Your task to perform on an android device: Go to Android settings Image 0: 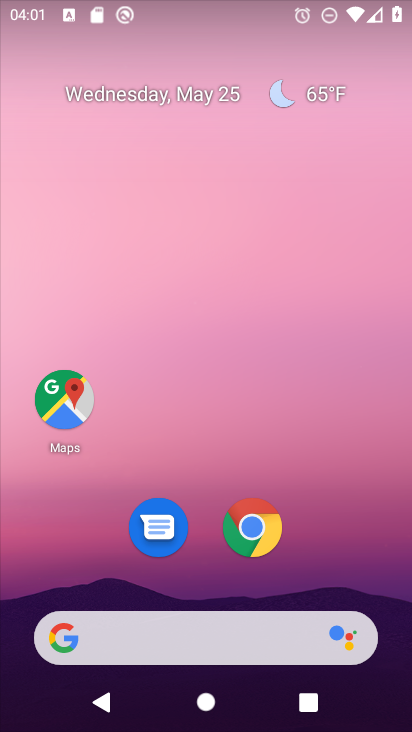
Step 0: drag from (276, 640) to (319, 74)
Your task to perform on an android device: Go to Android settings Image 1: 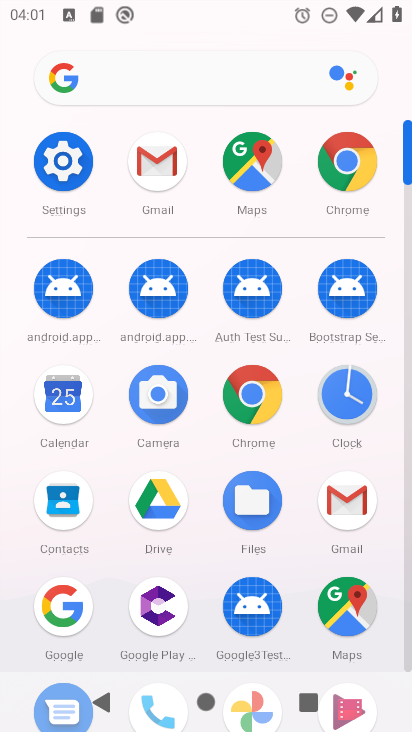
Step 1: click (51, 166)
Your task to perform on an android device: Go to Android settings Image 2: 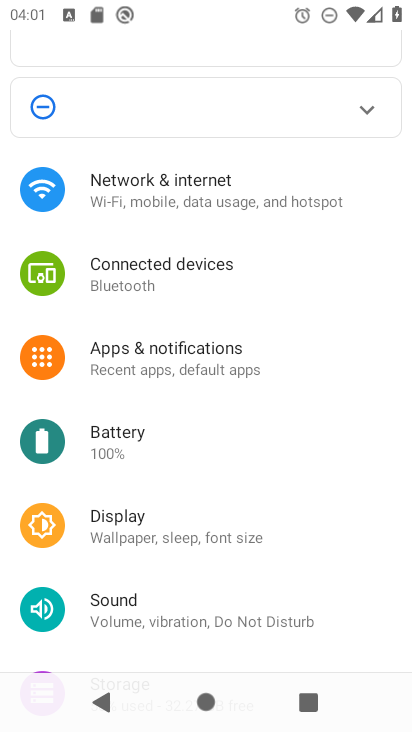
Step 2: drag from (185, 636) to (258, 88)
Your task to perform on an android device: Go to Android settings Image 3: 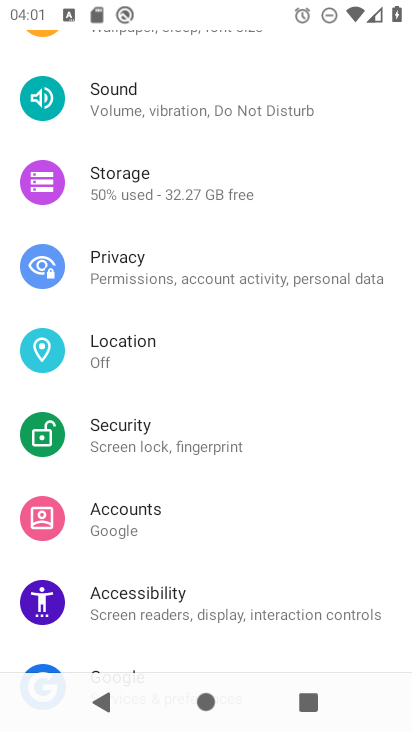
Step 3: drag from (222, 634) to (270, 128)
Your task to perform on an android device: Go to Android settings Image 4: 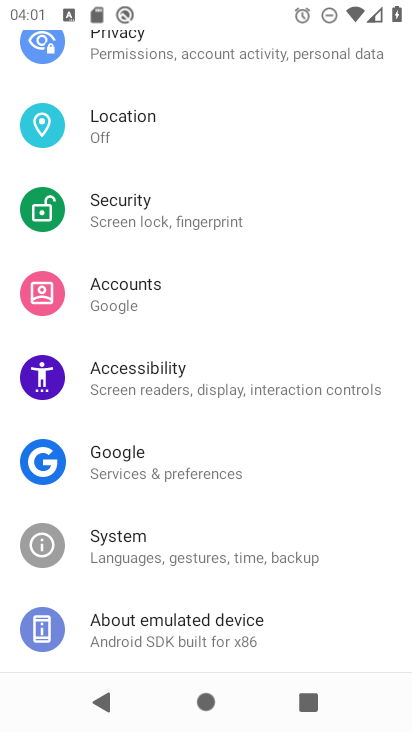
Step 4: click (157, 613)
Your task to perform on an android device: Go to Android settings Image 5: 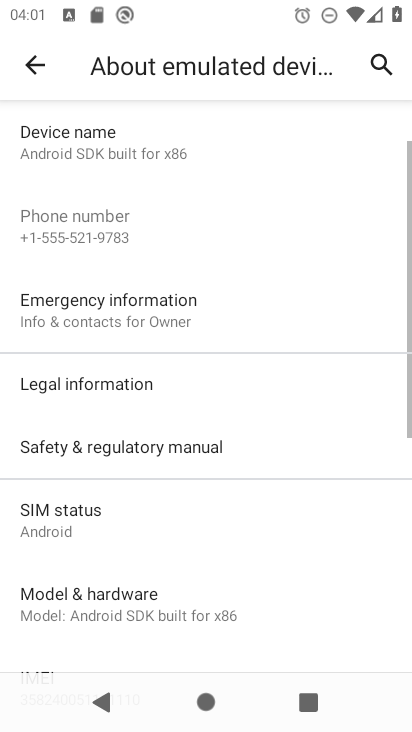
Step 5: drag from (223, 618) to (243, 190)
Your task to perform on an android device: Go to Android settings Image 6: 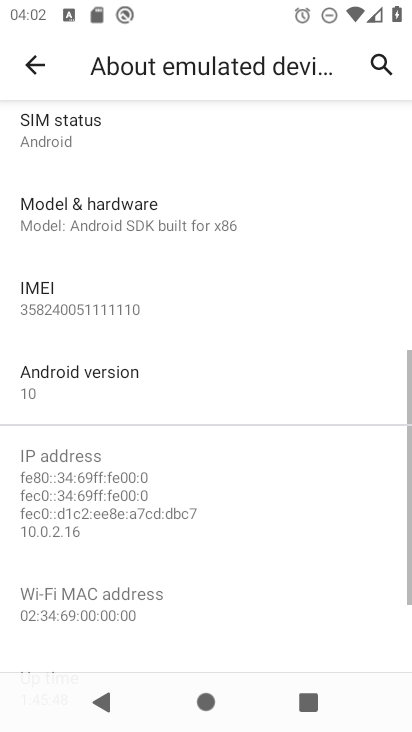
Step 6: click (106, 360)
Your task to perform on an android device: Go to Android settings Image 7: 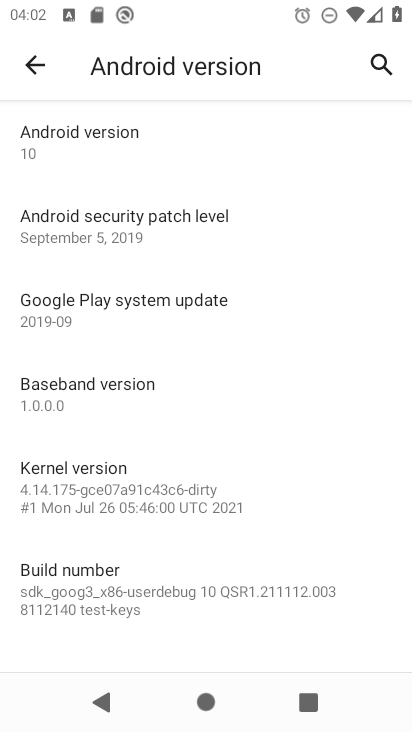
Step 7: task complete